Your task to perform on an android device: Go to CNN.com Image 0: 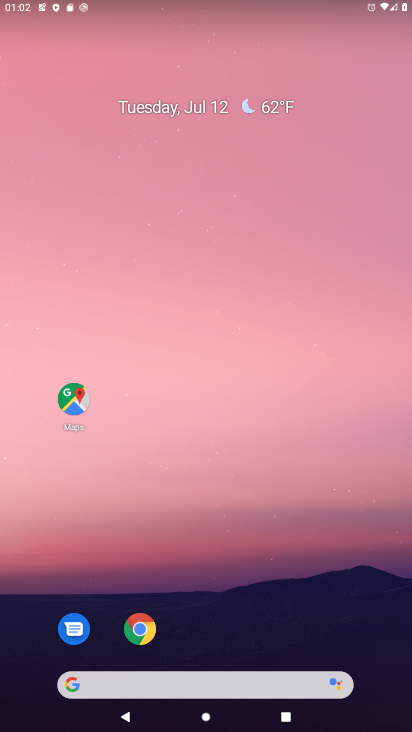
Step 0: press home button
Your task to perform on an android device: Go to CNN.com Image 1: 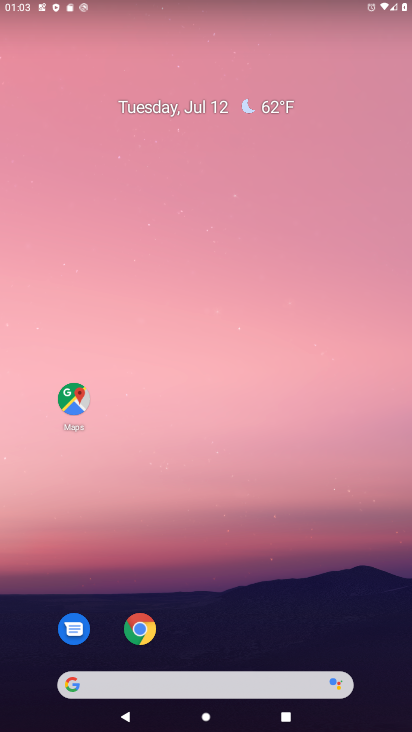
Step 1: drag from (358, 629) to (235, 108)
Your task to perform on an android device: Go to CNN.com Image 2: 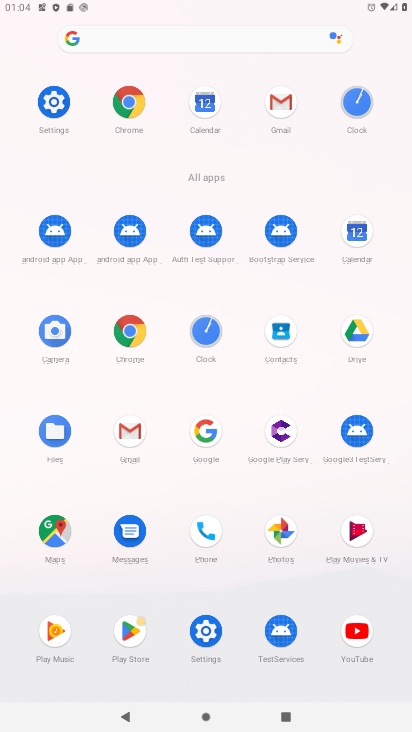
Step 2: click (125, 120)
Your task to perform on an android device: Go to CNN.com Image 3: 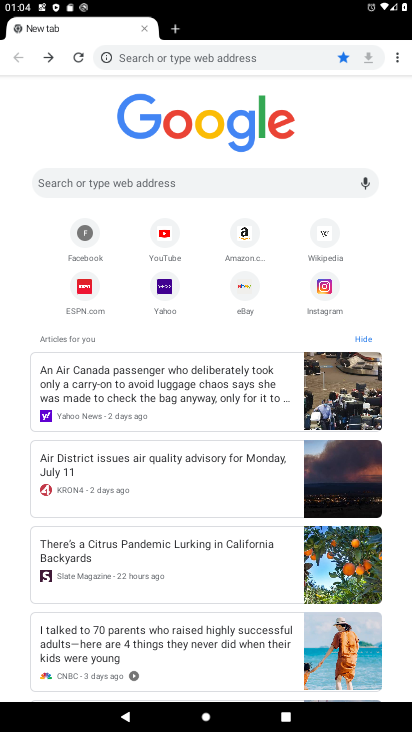
Step 3: click (154, 178)
Your task to perform on an android device: Go to CNN.com Image 4: 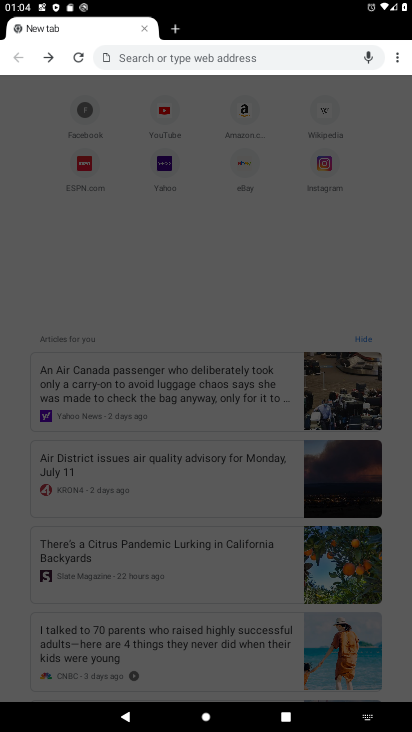
Step 4: type "CNN.com"
Your task to perform on an android device: Go to CNN.com Image 5: 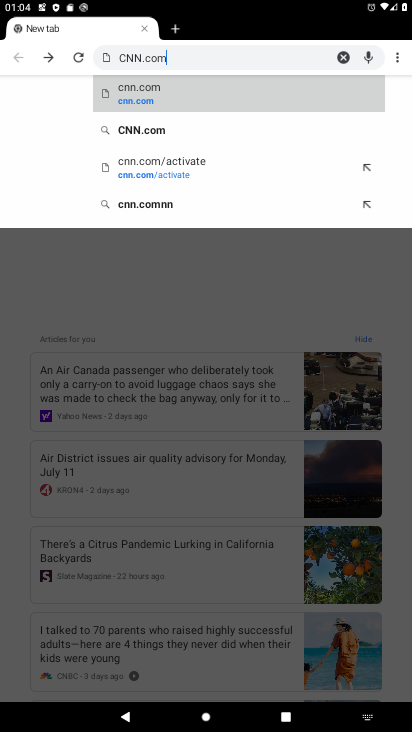
Step 5: click (101, 101)
Your task to perform on an android device: Go to CNN.com Image 6: 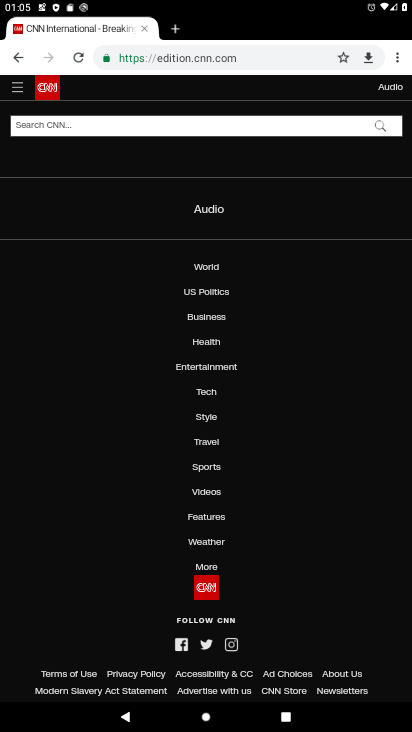
Step 6: task complete